Your task to perform on an android device: Go to Wikipedia Image 0: 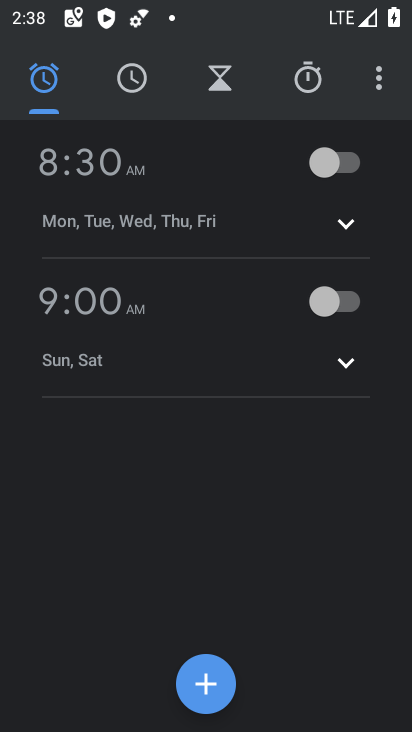
Step 0: press home button
Your task to perform on an android device: Go to Wikipedia Image 1: 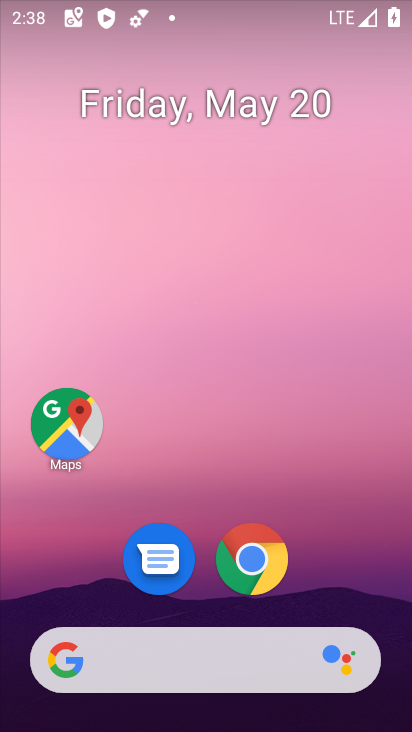
Step 1: click (263, 549)
Your task to perform on an android device: Go to Wikipedia Image 2: 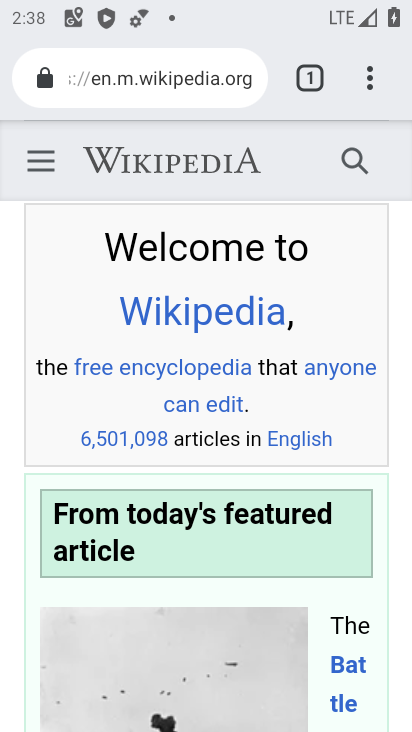
Step 2: task complete